Your task to perform on an android device: Go to Google maps Image 0: 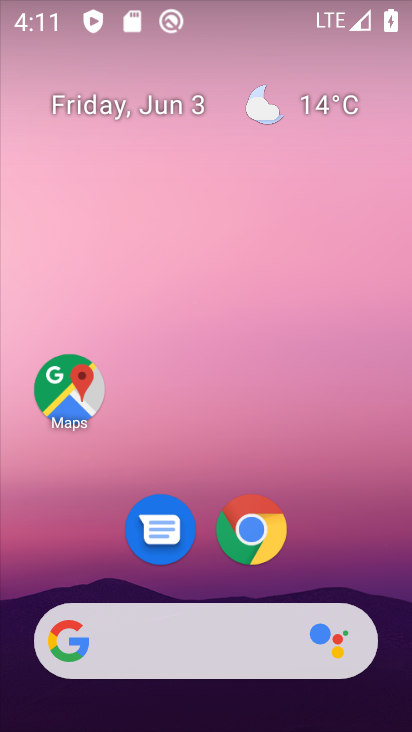
Step 0: drag from (322, 576) to (322, 8)
Your task to perform on an android device: Go to Google maps Image 1: 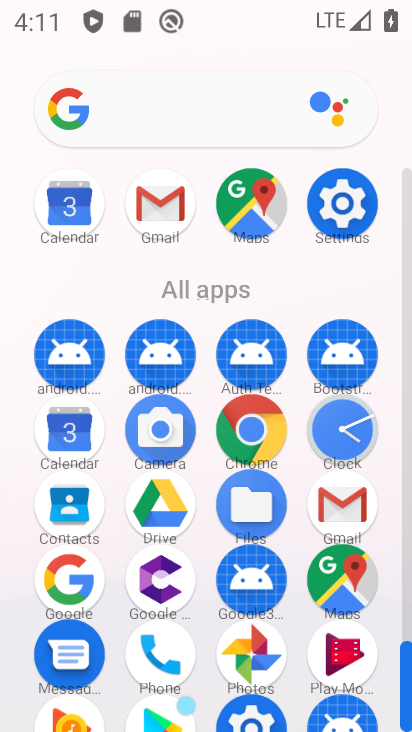
Step 1: click (254, 198)
Your task to perform on an android device: Go to Google maps Image 2: 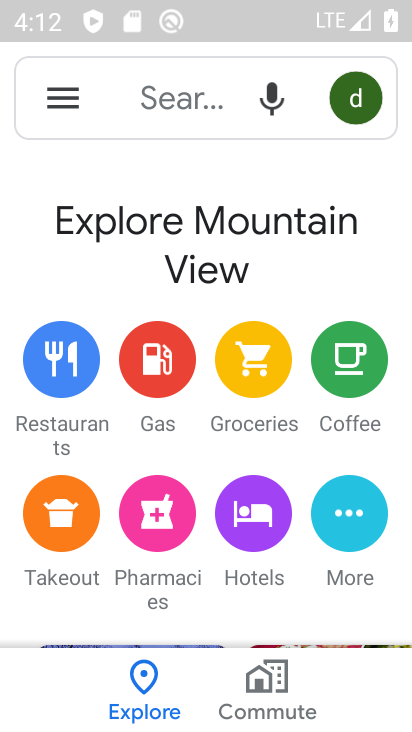
Step 2: task complete